Your task to perform on an android device: Open Youtube and go to the subscriptions tab Image 0: 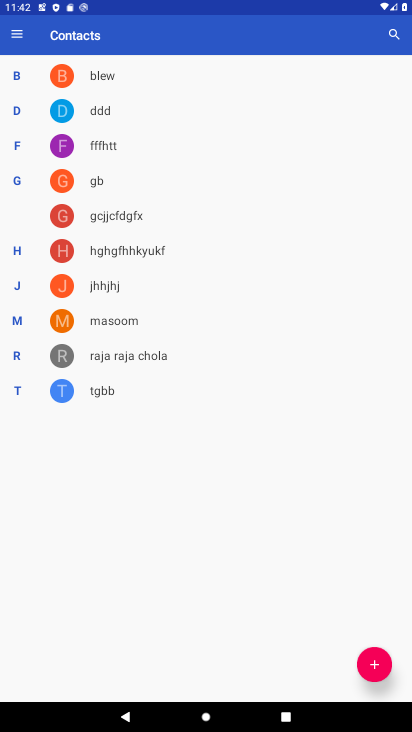
Step 0: press home button
Your task to perform on an android device: Open Youtube and go to the subscriptions tab Image 1: 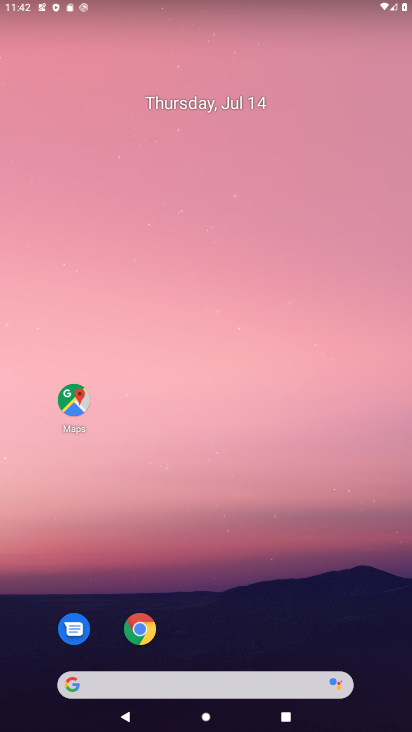
Step 1: drag from (355, 624) to (316, 113)
Your task to perform on an android device: Open Youtube and go to the subscriptions tab Image 2: 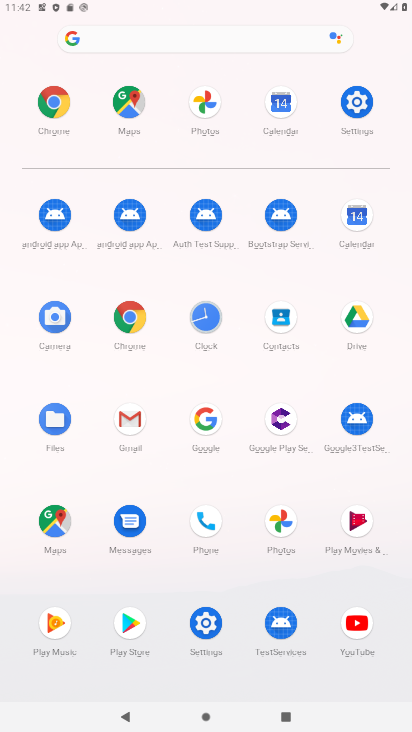
Step 2: click (347, 622)
Your task to perform on an android device: Open Youtube and go to the subscriptions tab Image 3: 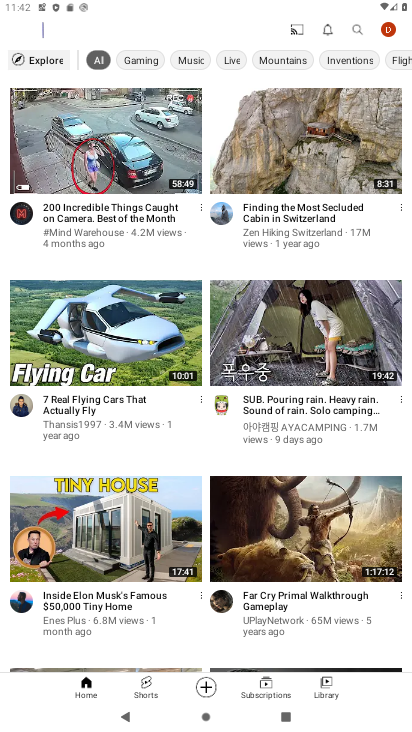
Step 3: click (266, 674)
Your task to perform on an android device: Open Youtube and go to the subscriptions tab Image 4: 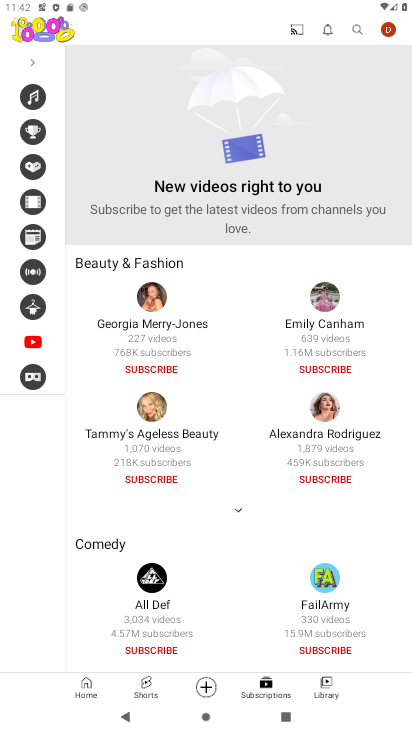
Step 4: task complete